Your task to perform on an android device: allow notifications from all sites in the chrome app Image 0: 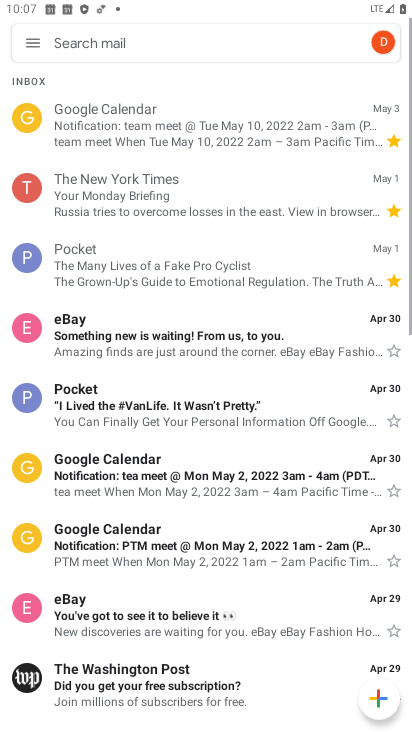
Step 0: drag from (226, 663) to (313, 220)
Your task to perform on an android device: allow notifications from all sites in the chrome app Image 1: 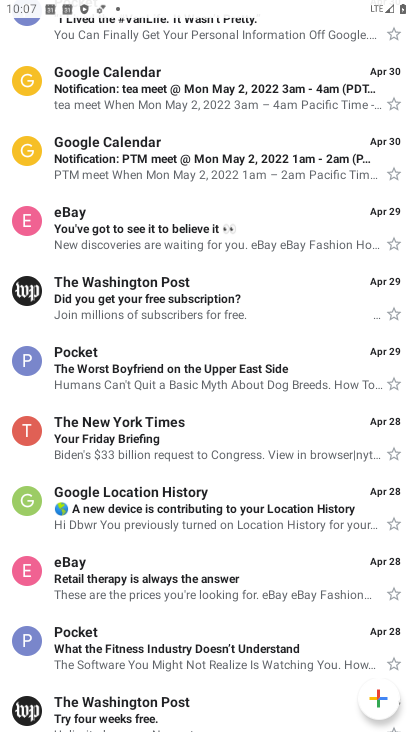
Step 1: drag from (223, 220) to (226, 617)
Your task to perform on an android device: allow notifications from all sites in the chrome app Image 2: 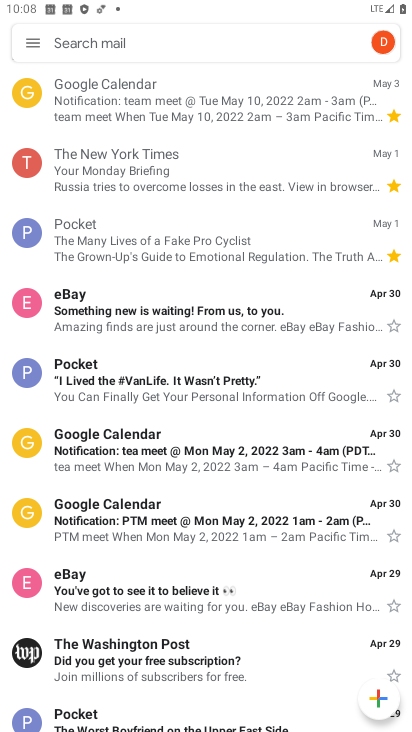
Step 2: press home button
Your task to perform on an android device: allow notifications from all sites in the chrome app Image 3: 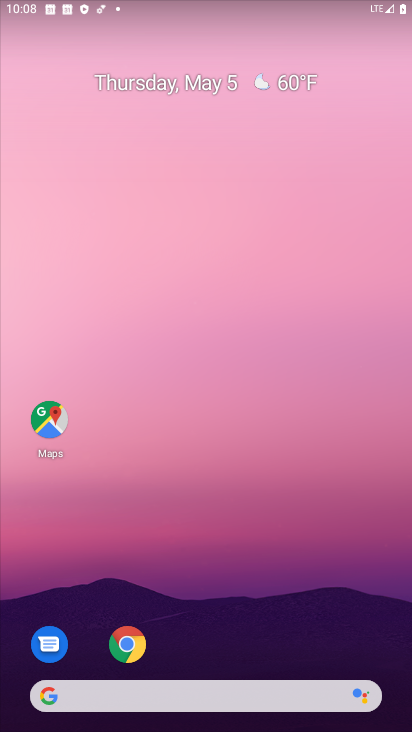
Step 3: drag from (205, 657) to (256, 184)
Your task to perform on an android device: allow notifications from all sites in the chrome app Image 4: 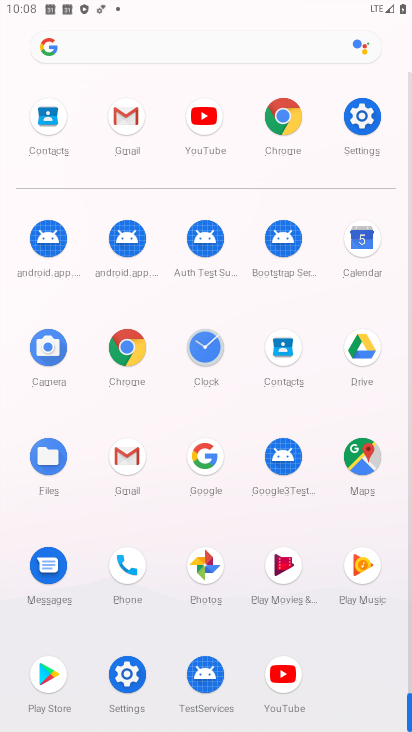
Step 4: click (279, 117)
Your task to perform on an android device: allow notifications from all sites in the chrome app Image 5: 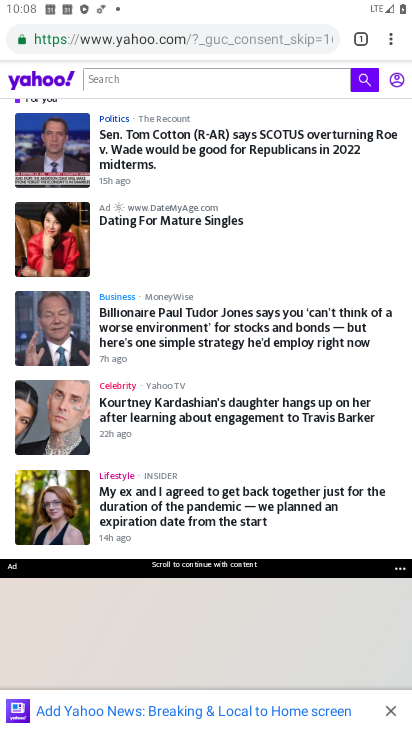
Step 5: drag from (264, 110) to (268, 636)
Your task to perform on an android device: allow notifications from all sites in the chrome app Image 6: 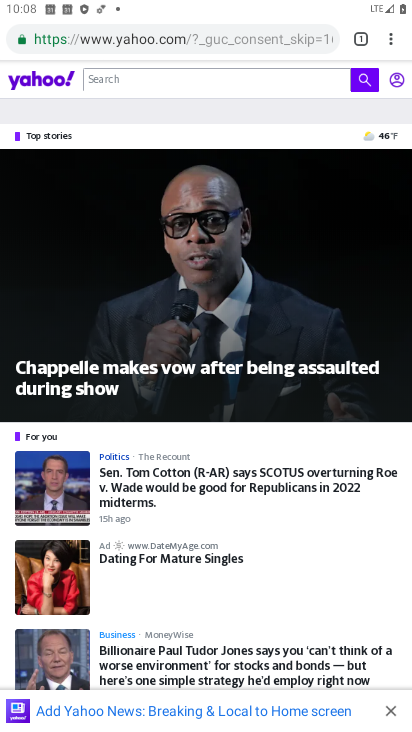
Step 6: drag from (389, 42) to (303, 472)
Your task to perform on an android device: allow notifications from all sites in the chrome app Image 7: 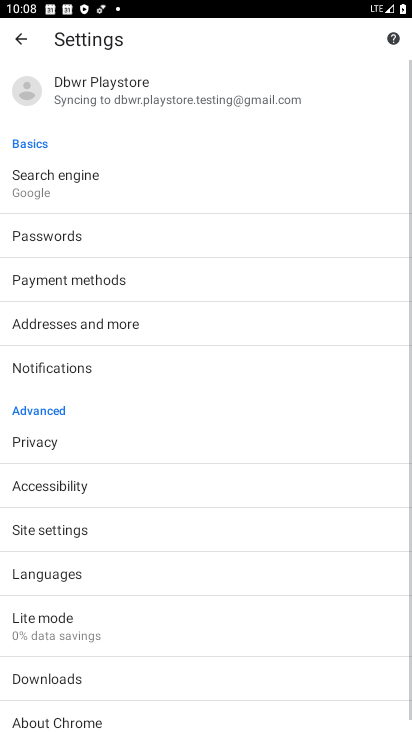
Step 7: drag from (189, 536) to (197, 62)
Your task to perform on an android device: allow notifications from all sites in the chrome app Image 8: 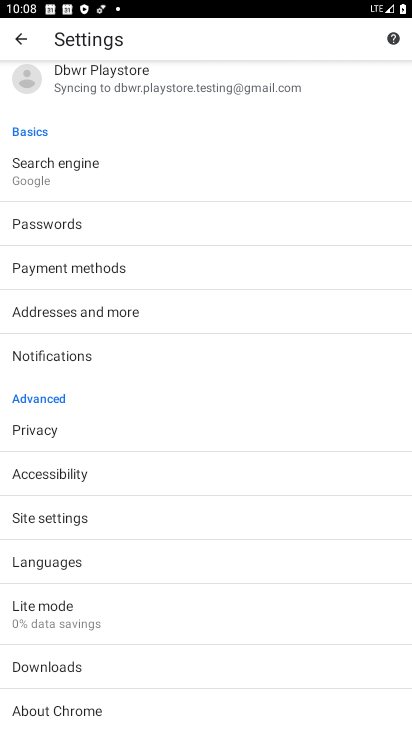
Step 8: click (88, 520)
Your task to perform on an android device: allow notifications from all sites in the chrome app Image 9: 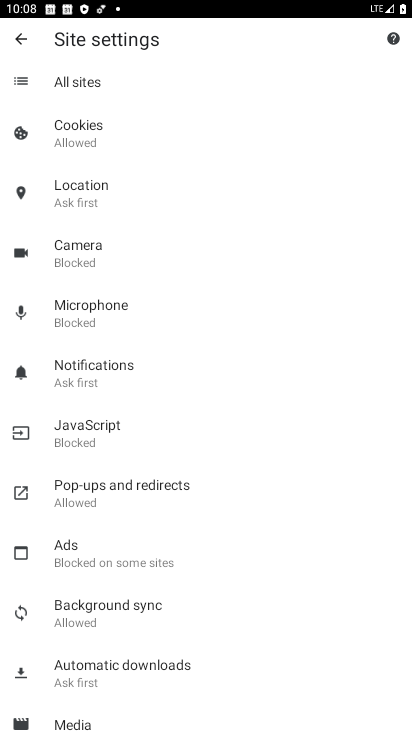
Step 9: drag from (212, 598) to (281, 219)
Your task to perform on an android device: allow notifications from all sites in the chrome app Image 10: 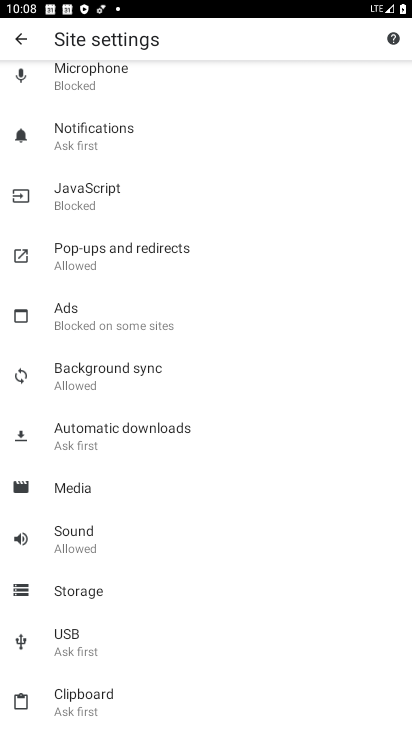
Step 10: drag from (188, 172) to (156, 525)
Your task to perform on an android device: allow notifications from all sites in the chrome app Image 11: 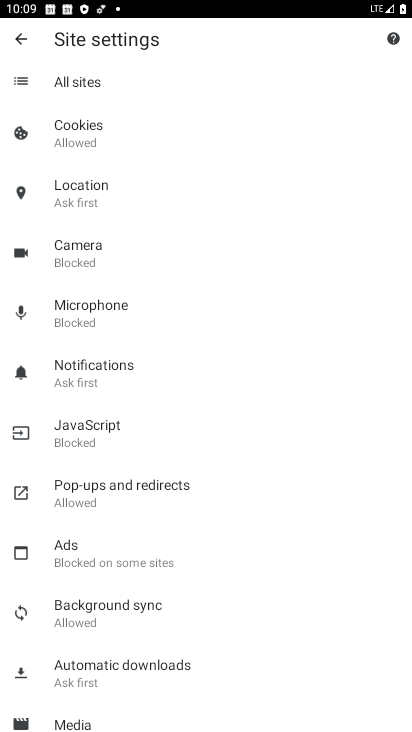
Step 11: click (137, 379)
Your task to perform on an android device: allow notifications from all sites in the chrome app Image 12: 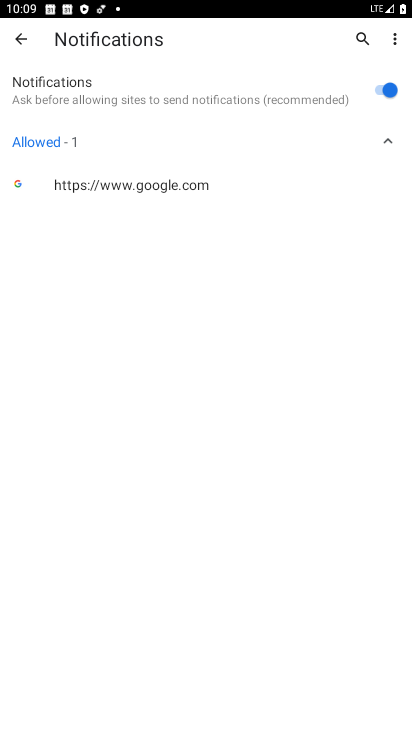
Step 12: click (29, 35)
Your task to perform on an android device: allow notifications from all sites in the chrome app Image 13: 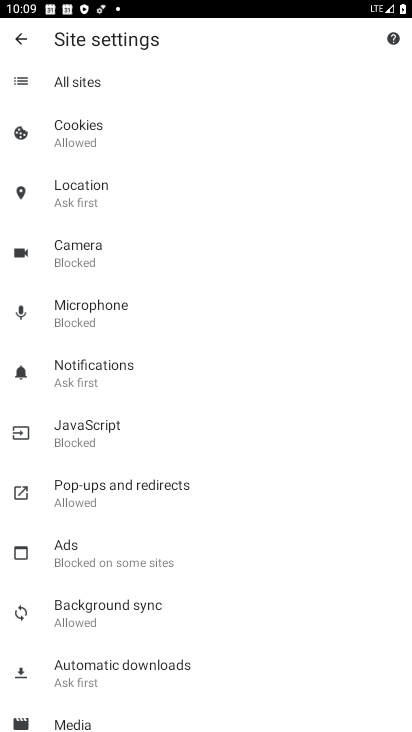
Step 13: click (105, 386)
Your task to perform on an android device: allow notifications from all sites in the chrome app Image 14: 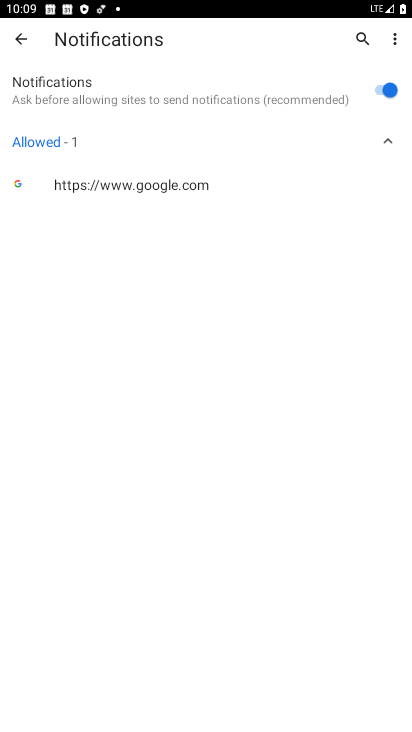
Step 14: task complete